Your task to perform on an android device: Open Google Chrome and open the bookmarks view Image 0: 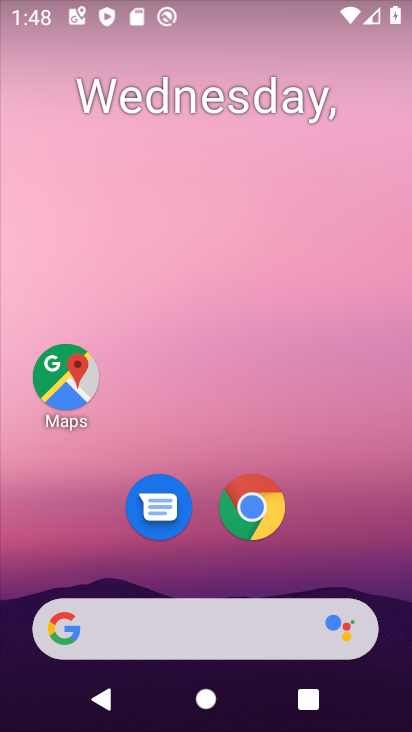
Step 0: drag from (357, 530) to (324, 148)
Your task to perform on an android device: Open Google Chrome and open the bookmarks view Image 1: 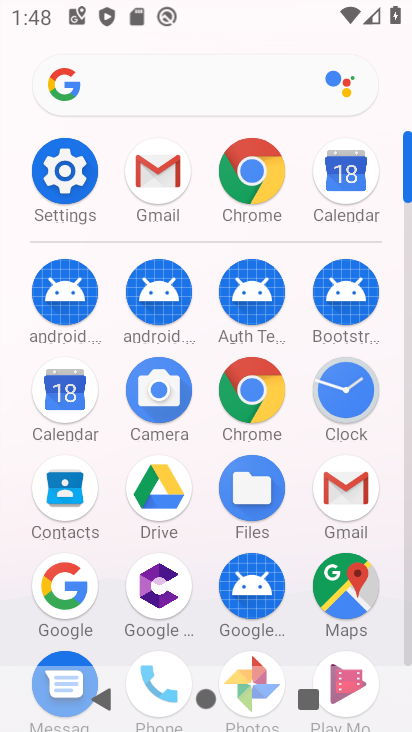
Step 1: click (268, 398)
Your task to perform on an android device: Open Google Chrome and open the bookmarks view Image 2: 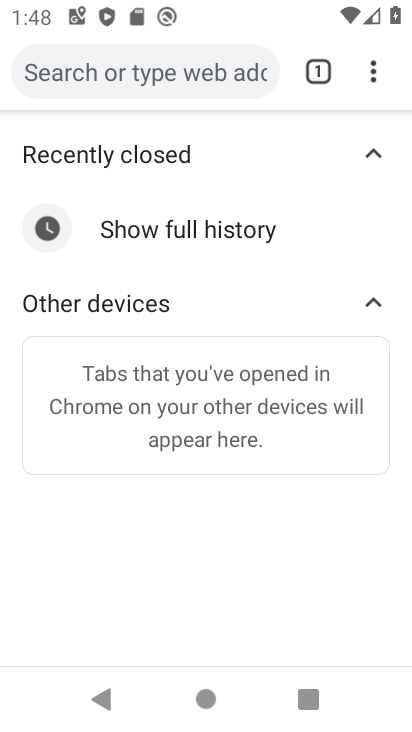
Step 2: task complete